Your task to perform on an android device: set the stopwatch Image 0: 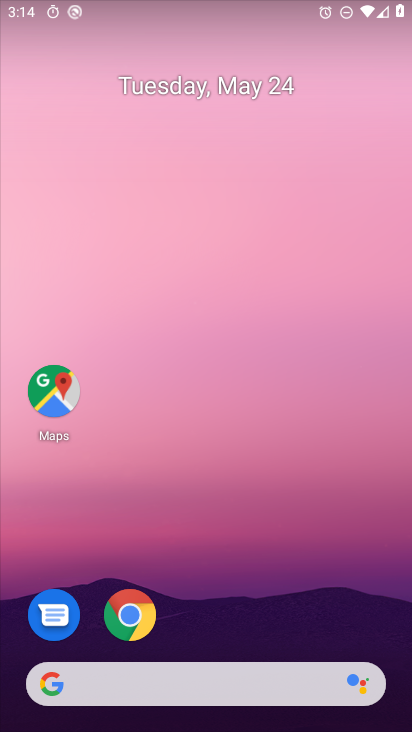
Step 0: click (124, 617)
Your task to perform on an android device: set the stopwatch Image 1: 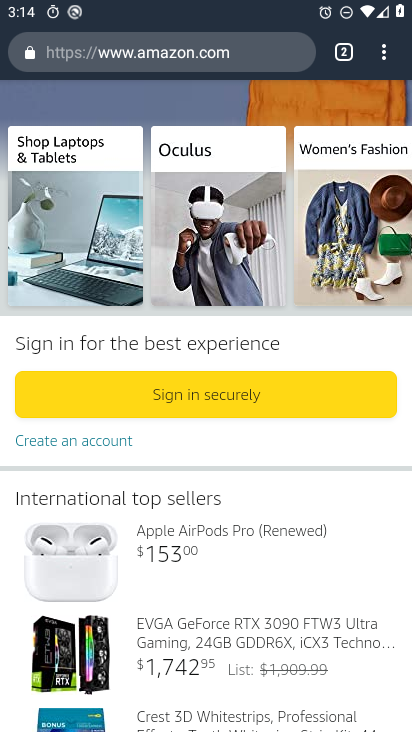
Step 1: press home button
Your task to perform on an android device: set the stopwatch Image 2: 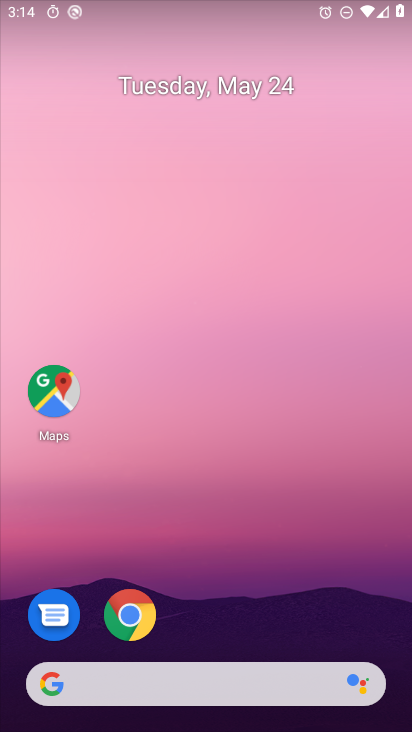
Step 2: drag from (198, 664) to (208, 204)
Your task to perform on an android device: set the stopwatch Image 3: 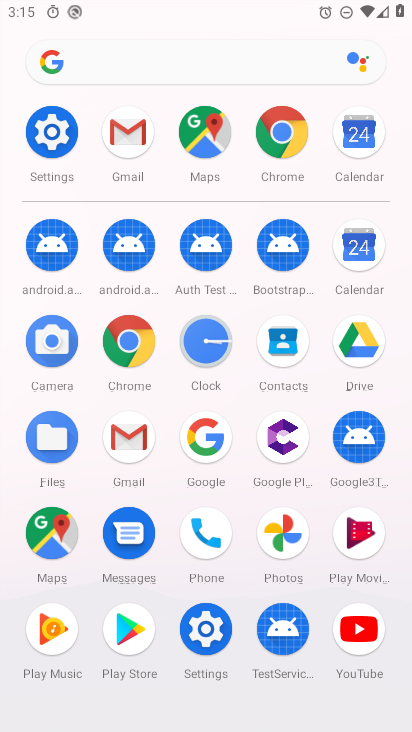
Step 3: click (213, 344)
Your task to perform on an android device: set the stopwatch Image 4: 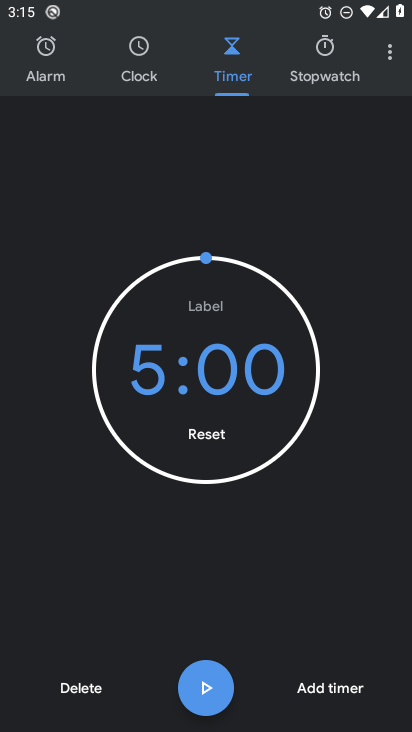
Step 4: click (314, 53)
Your task to perform on an android device: set the stopwatch Image 5: 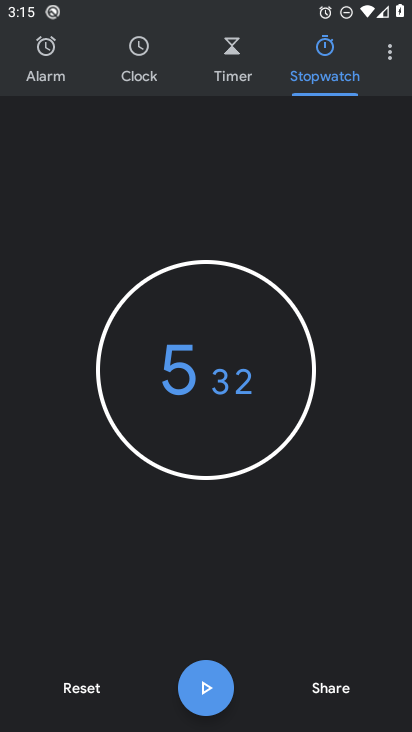
Step 5: click (196, 697)
Your task to perform on an android device: set the stopwatch Image 6: 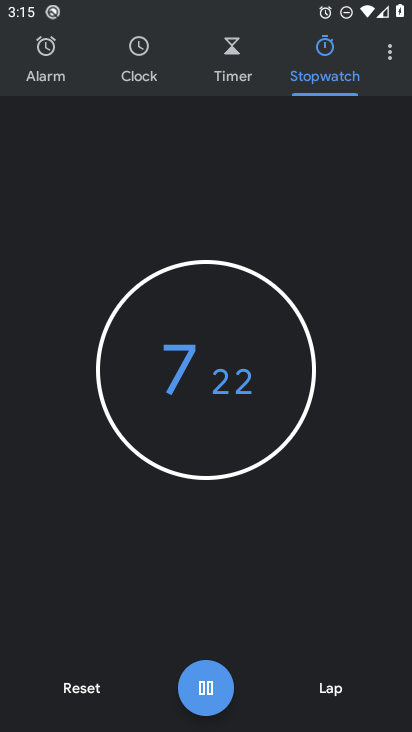
Step 6: click (204, 700)
Your task to perform on an android device: set the stopwatch Image 7: 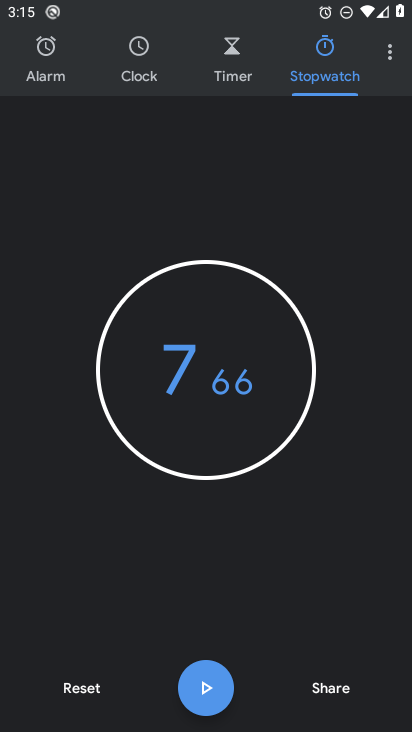
Step 7: click (78, 684)
Your task to perform on an android device: set the stopwatch Image 8: 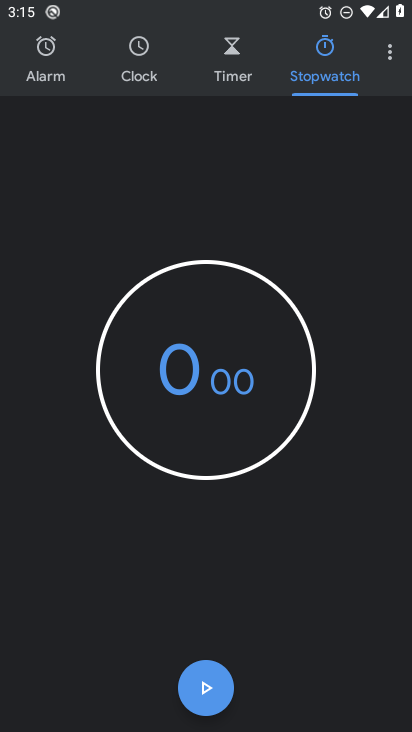
Step 8: click (212, 700)
Your task to perform on an android device: set the stopwatch Image 9: 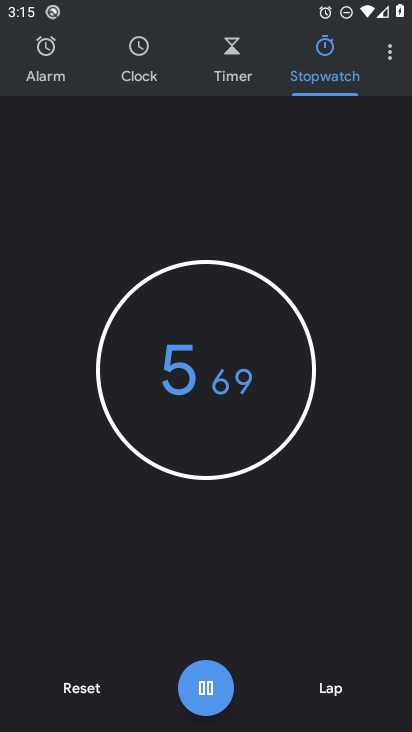
Step 9: click (210, 701)
Your task to perform on an android device: set the stopwatch Image 10: 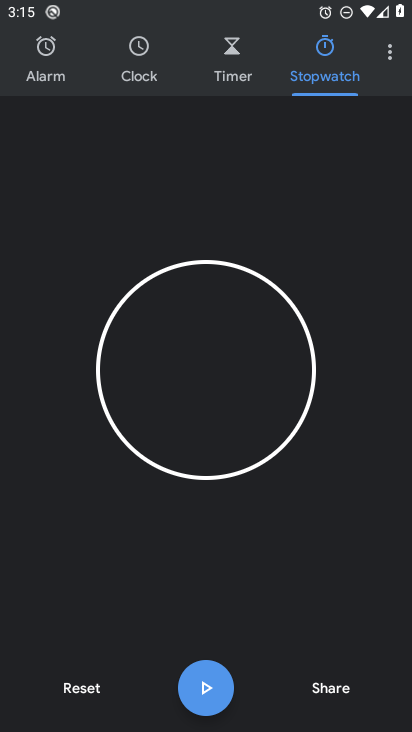
Step 10: task complete